Your task to perform on an android device: turn off notifications in google photos Image 0: 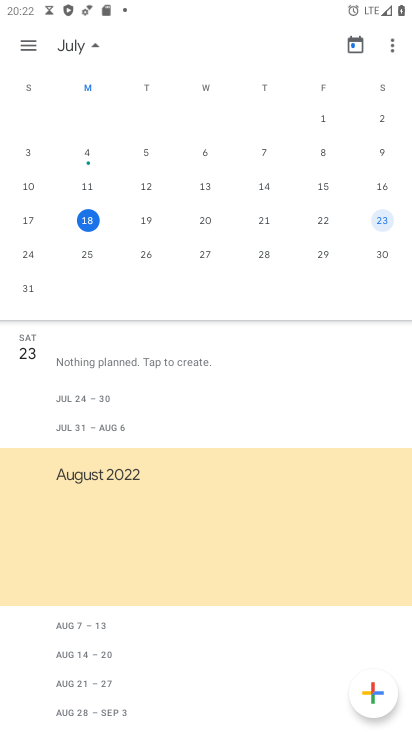
Step 0: press home button
Your task to perform on an android device: turn off notifications in google photos Image 1: 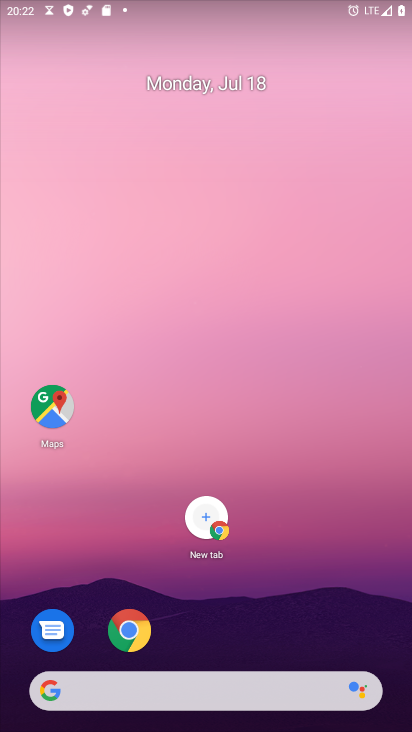
Step 1: drag from (184, 675) to (278, 372)
Your task to perform on an android device: turn off notifications in google photos Image 2: 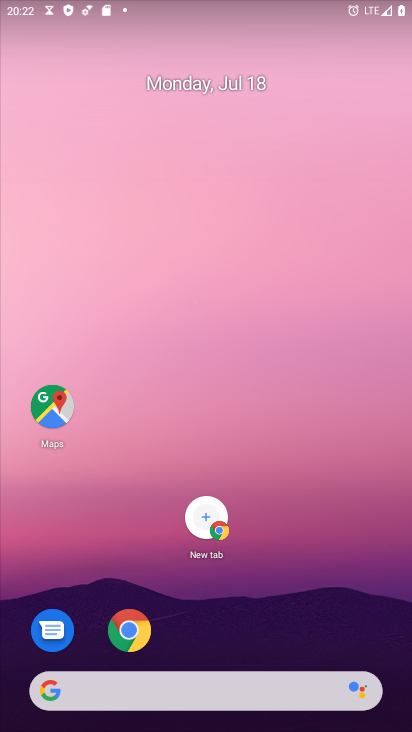
Step 2: drag from (227, 661) to (246, 177)
Your task to perform on an android device: turn off notifications in google photos Image 3: 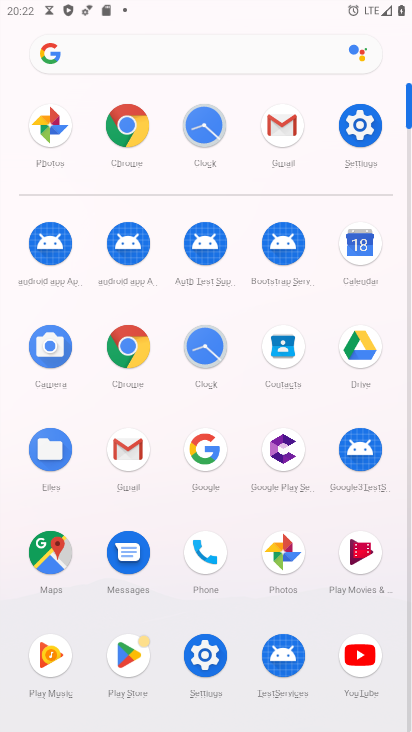
Step 3: click (269, 554)
Your task to perform on an android device: turn off notifications in google photos Image 4: 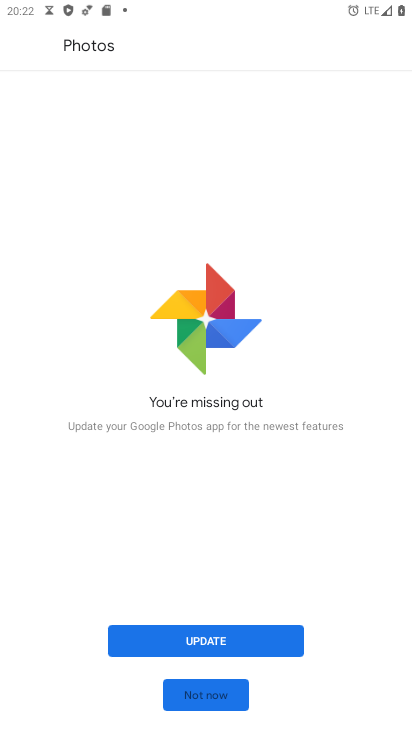
Step 4: click (212, 694)
Your task to perform on an android device: turn off notifications in google photos Image 5: 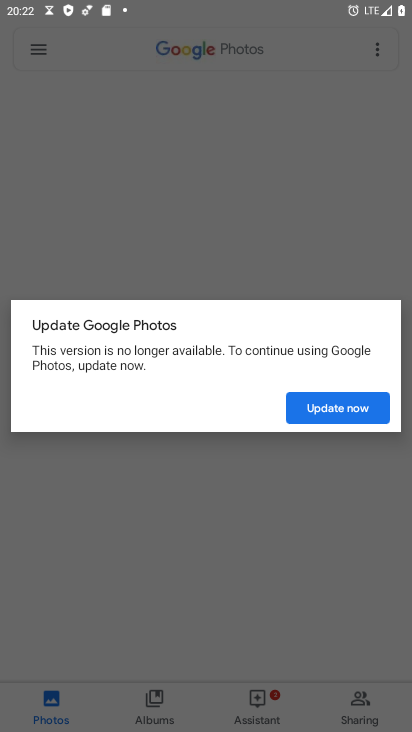
Step 5: click (338, 408)
Your task to perform on an android device: turn off notifications in google photos Image 6: 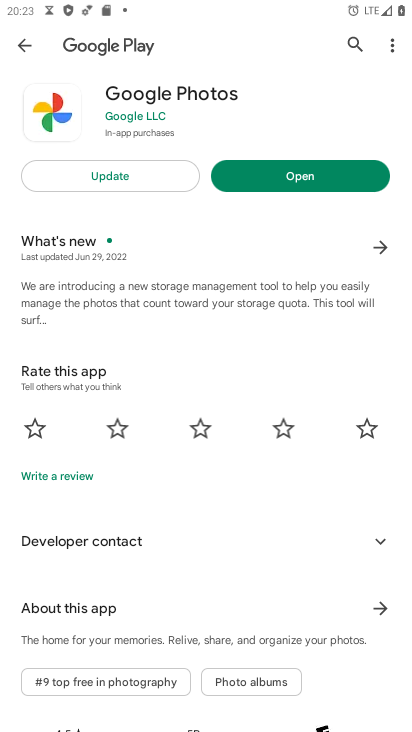
Step 6: click (121, 174)
Your task to perform on an android device: turn off notifications in google photos Image 7: 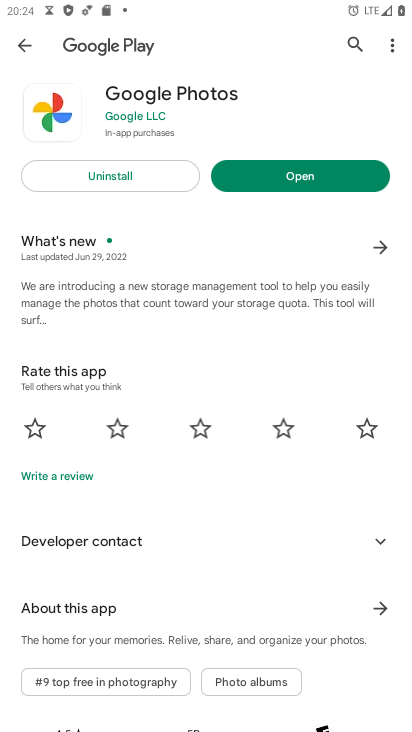
Step 7: click (320, 178)
Your task to perform on an android device: turn off notifications in google photos Image 8: 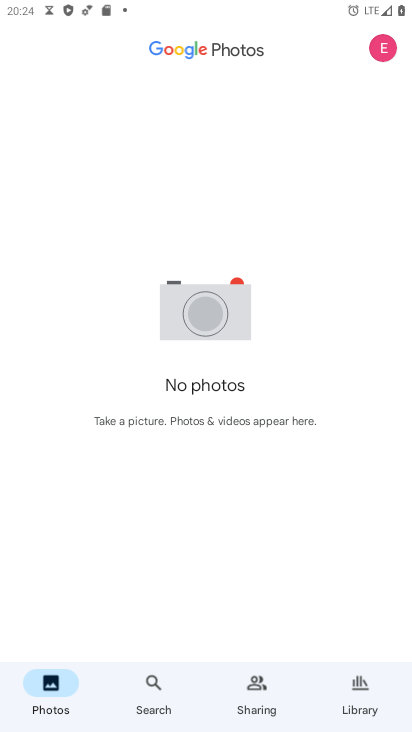
Step 8: click (383, 45)
Your task to perform on an android device: turn off notifications in google photos Image 9: 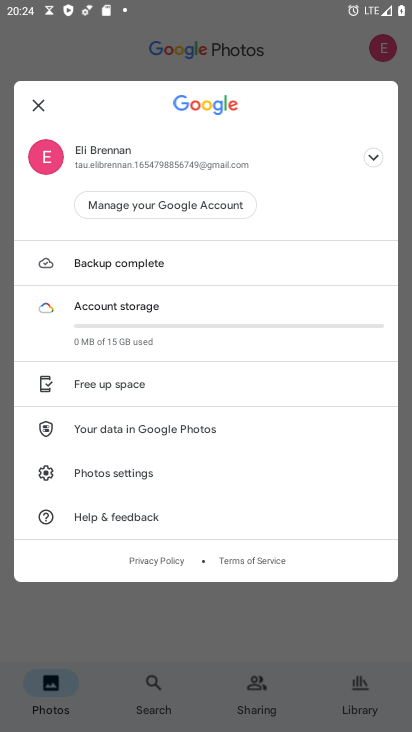
Step 9: click (105, 470)
Your task to perform on an android device: turn off notifications in google photos Image 10: 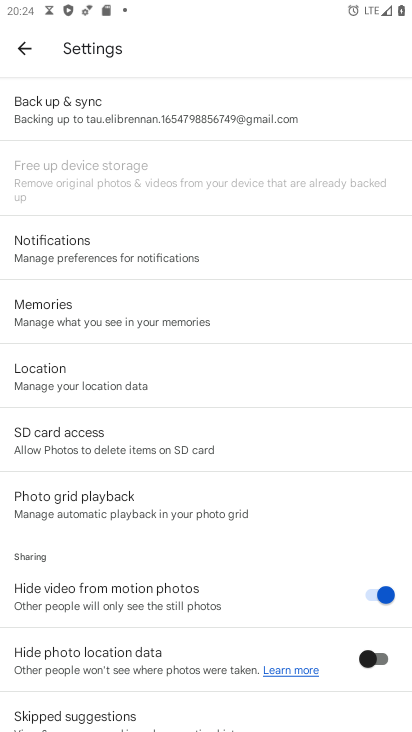
Step 10: click (77, 248)
Your task to perform on an android device: turn off notifications in google photos Image 11: 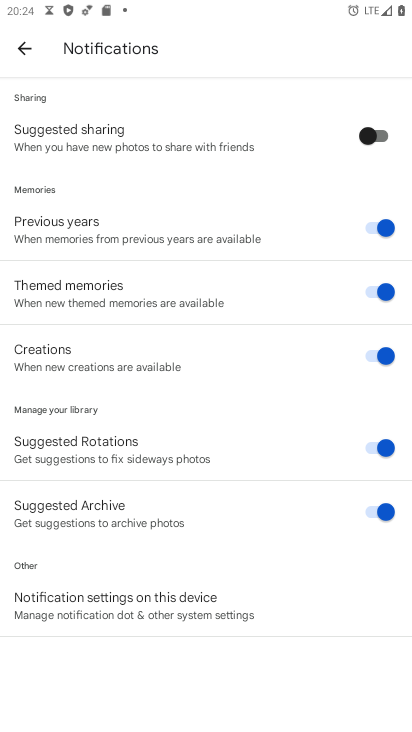
Step 11: click (198, 612)
Your task to perform on an android device: turn off notifications in google photos Image 12: 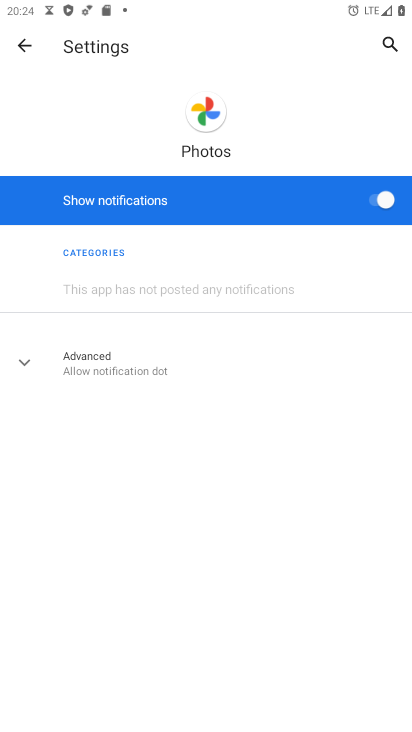
Step 12: click (376, 201)
Your task to perform on an android device: turn off notifications in google photos Image 13: 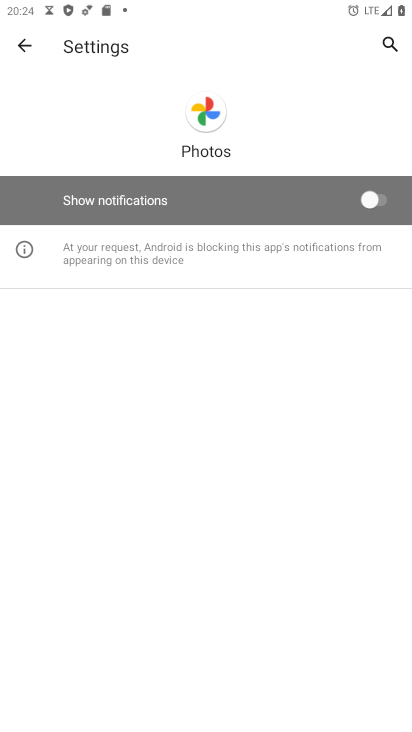
Step 13: task complete